Your task to perform on an android device: open app "Google Duo" Image 0: 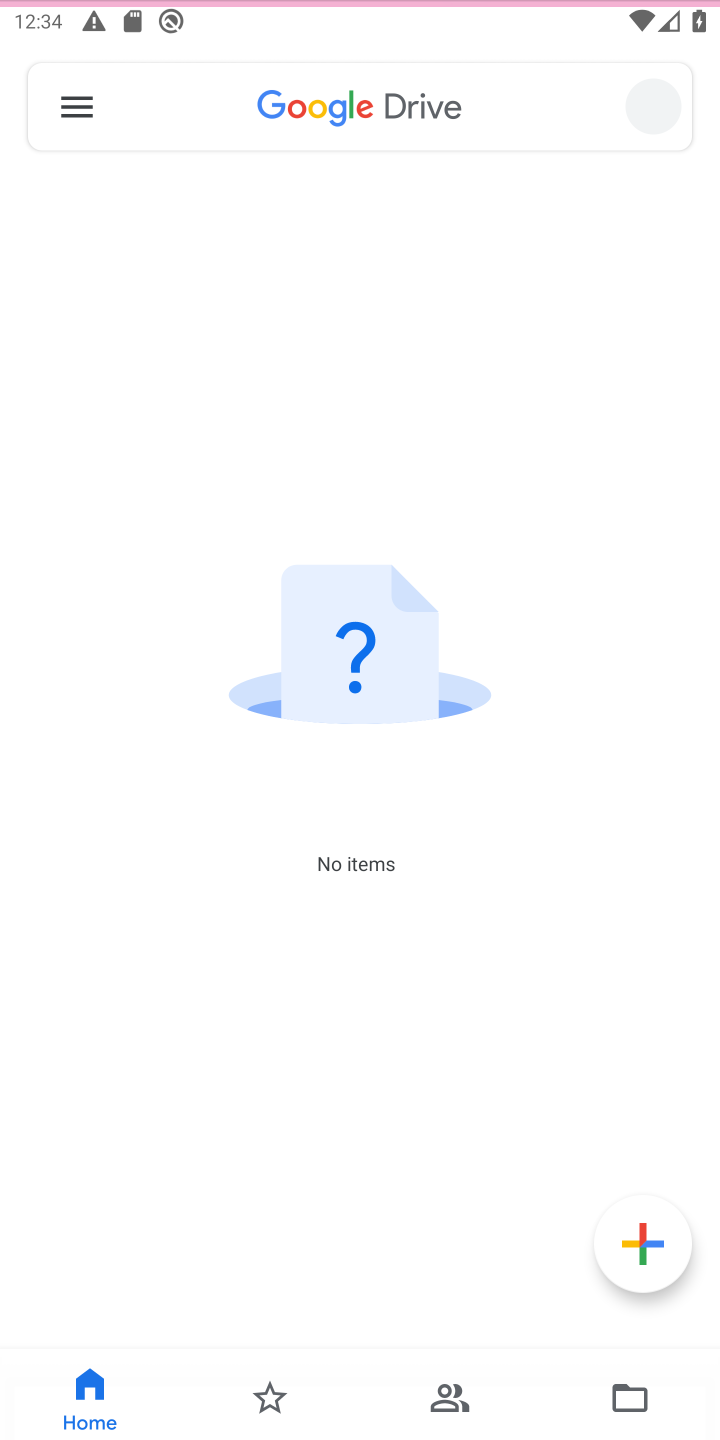
Step 0: press back button
Your task to perform on an android device: open app "Google Duo" Image 1: 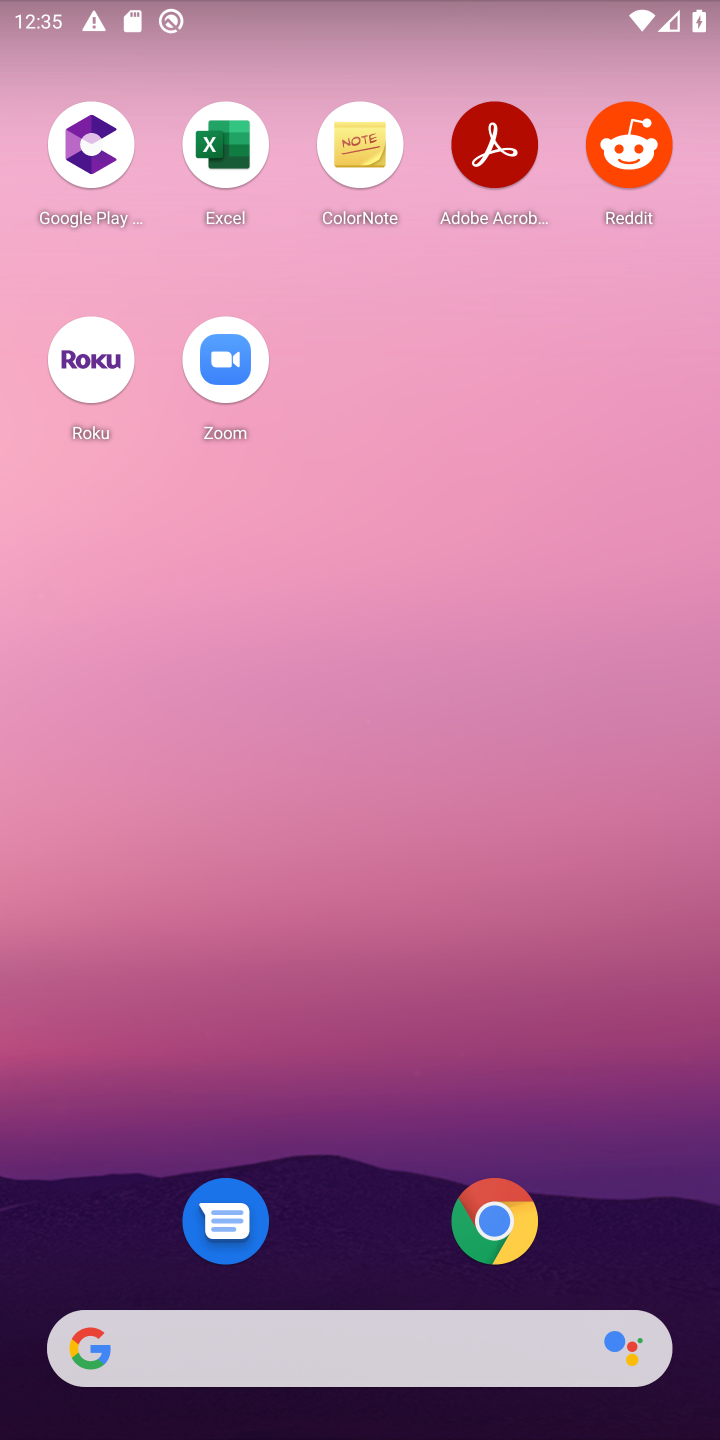
Step 1: drag from (377, 1152) to (544, 399)
Your task to perform on an android device: open app "Google Duo" Image 2: 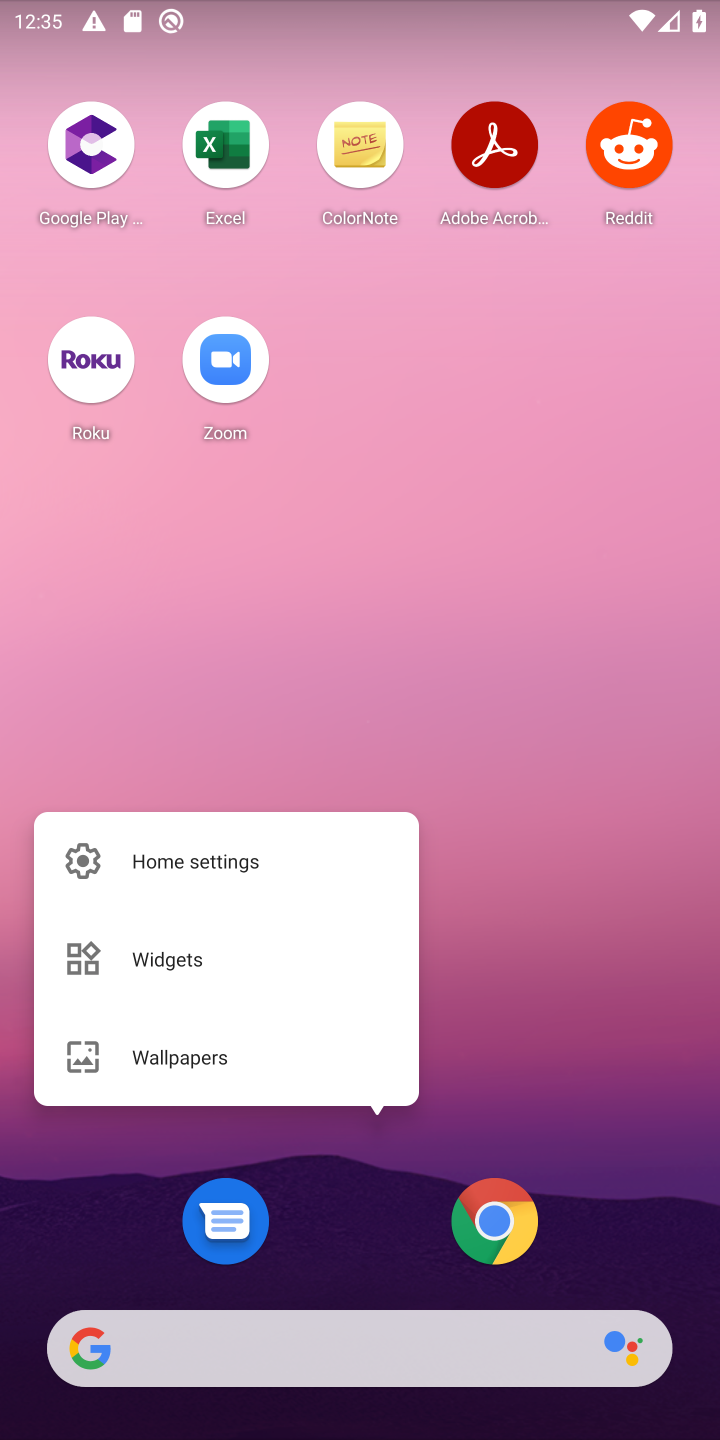
Step 2: click (397, 627)
Your task to perform on an android device: open app "Google Duo" Image 3: 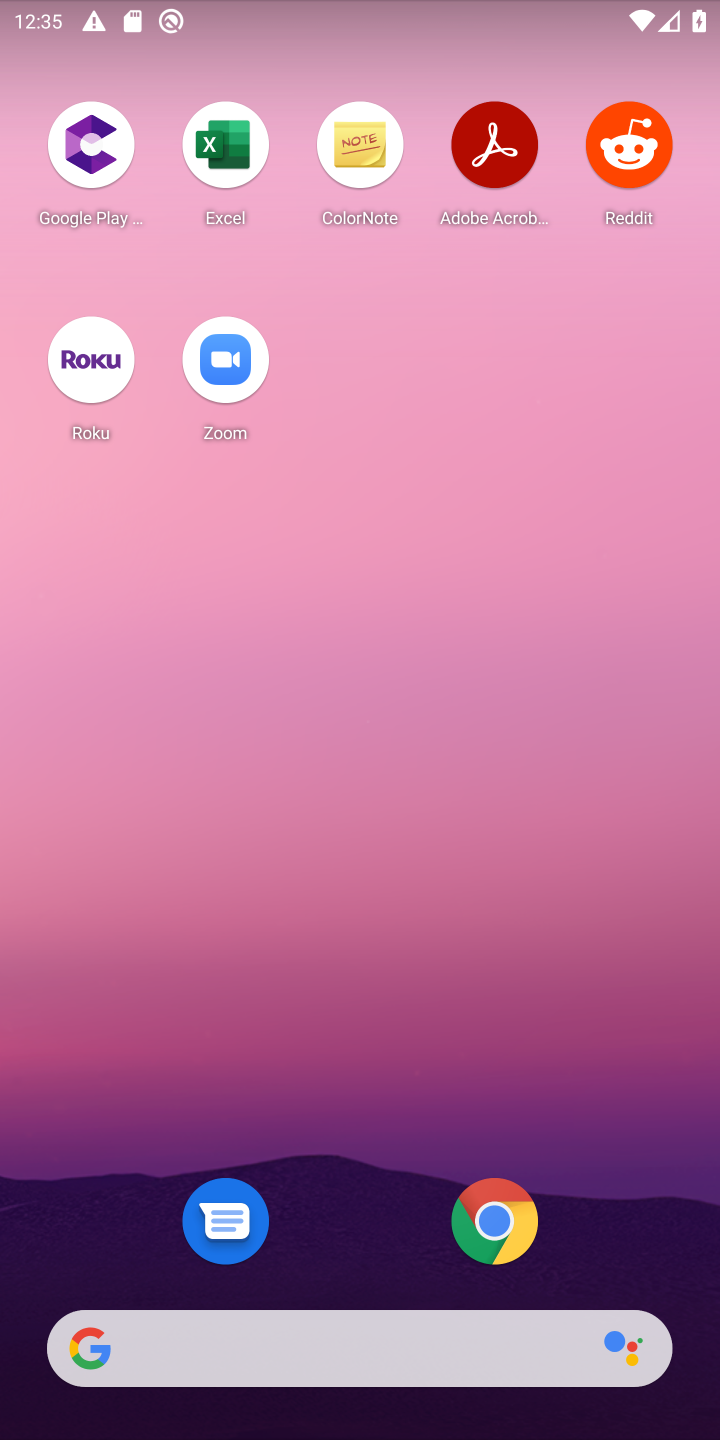
Step 3: drag from (383, 918) to (585, 188)
Your task to perform on an android device: open app "Google Duo" Image 4: 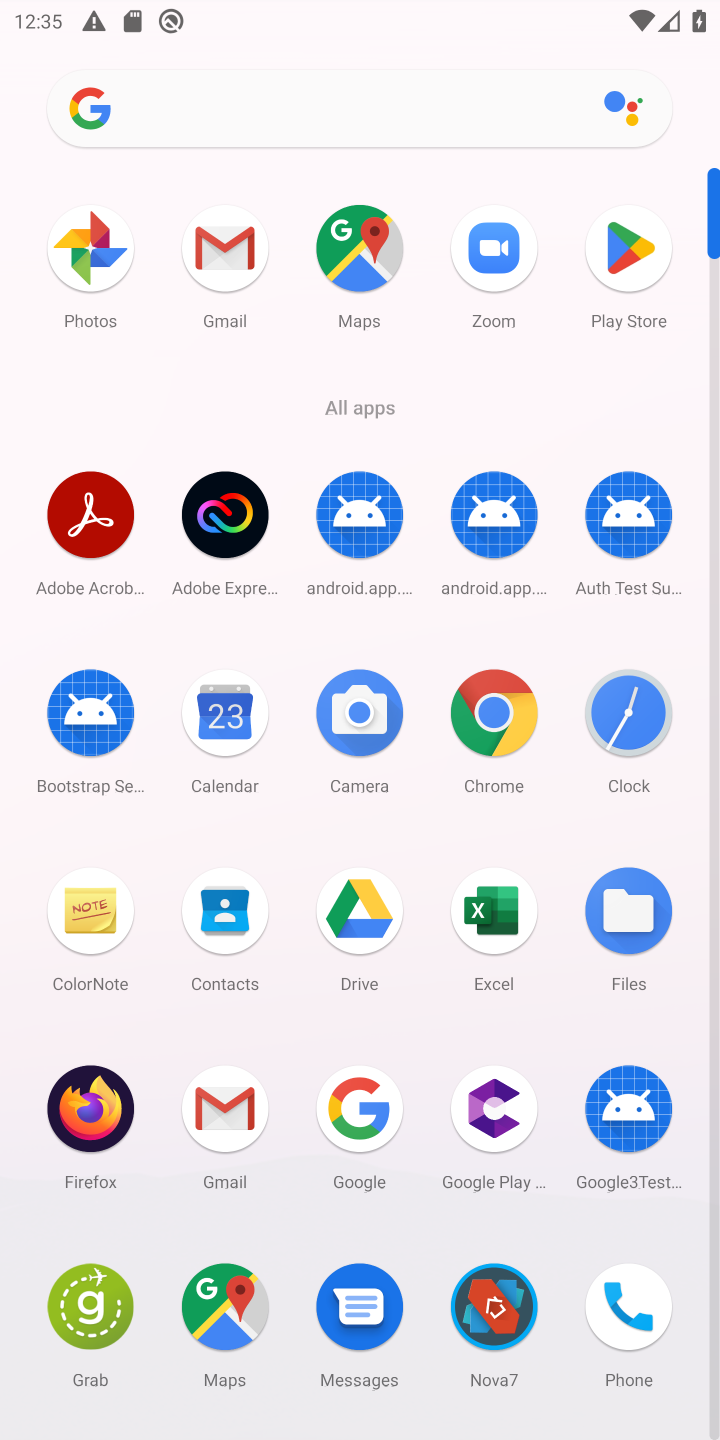
Step 4: click (630, 239)
Your task to perform on an android device: open app "Google Duo" Image 5: 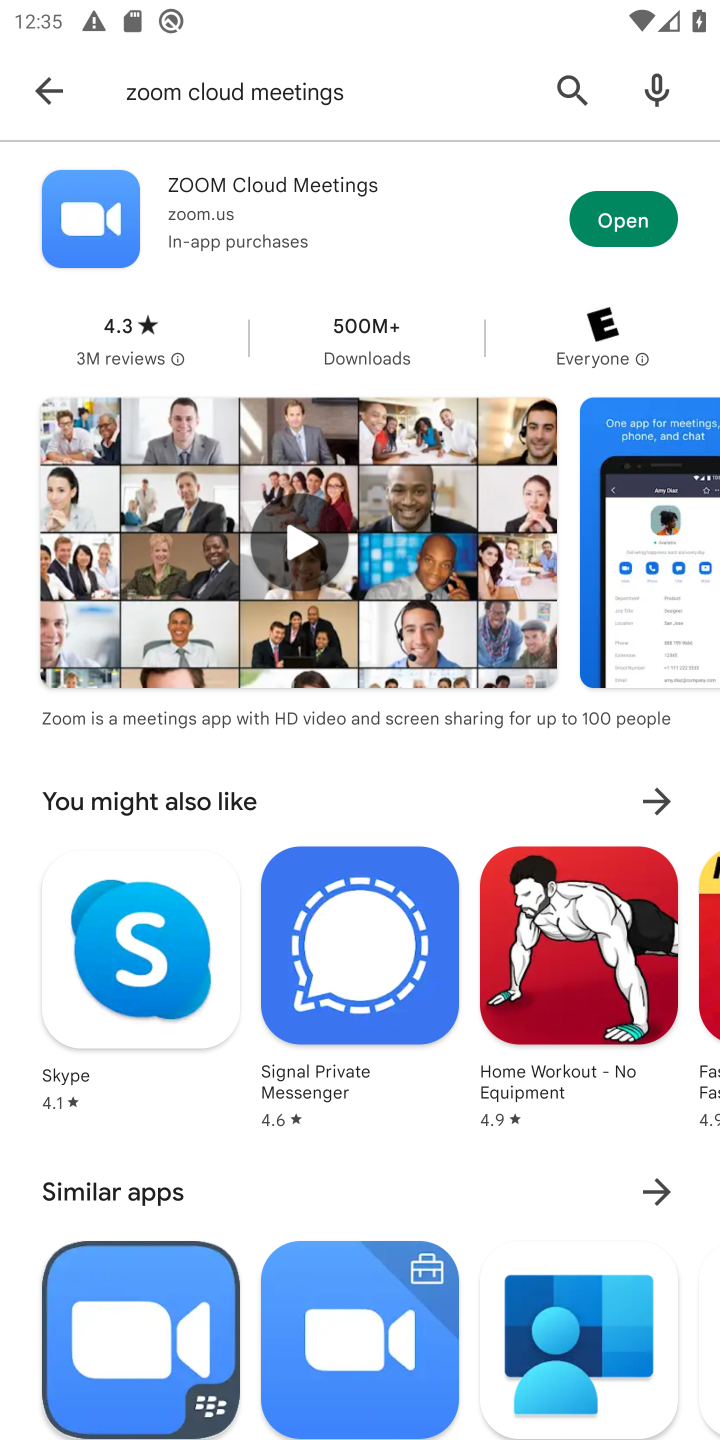
Step 5: click (580, 75)
Your task to perform on an android device: open app "Google Duo" Image 6: 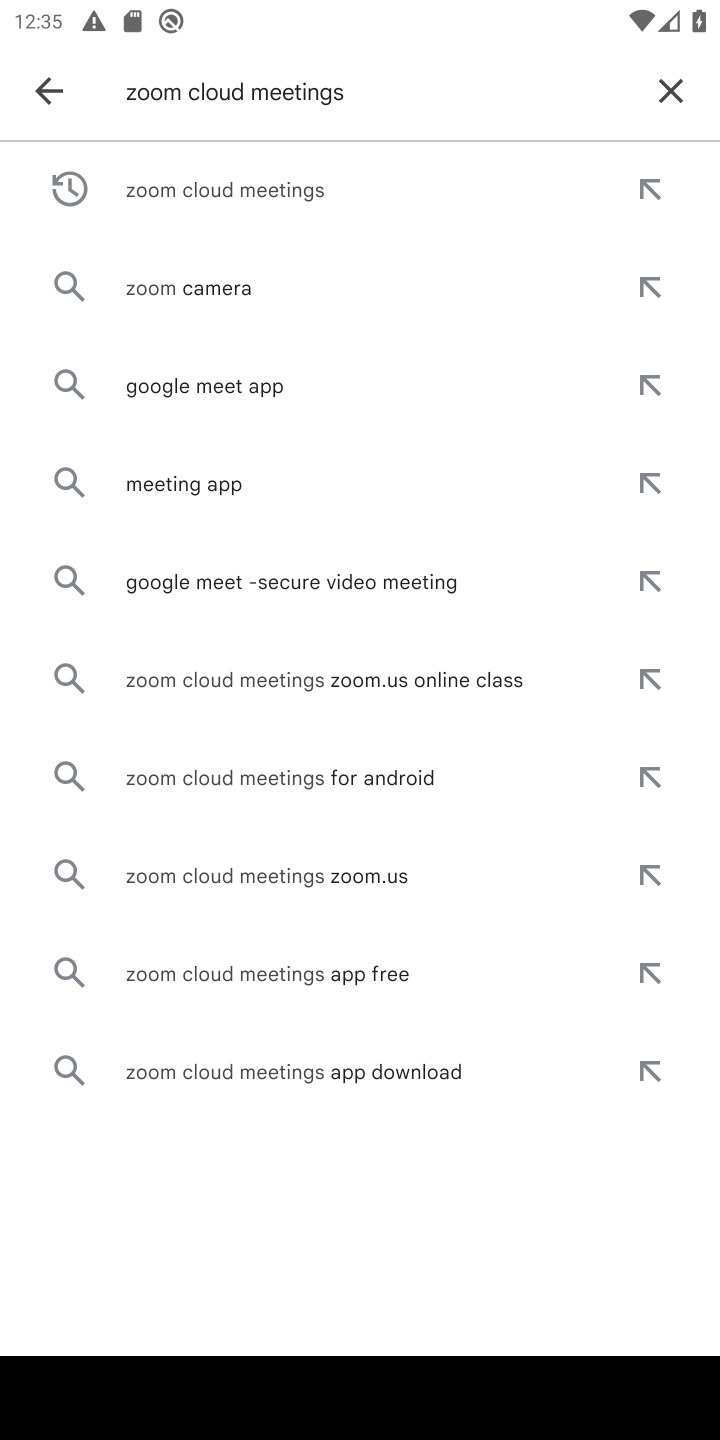
Step 6: click (658, 81)
Your task to perform on an android device: open app "Google Duo" Image 7: 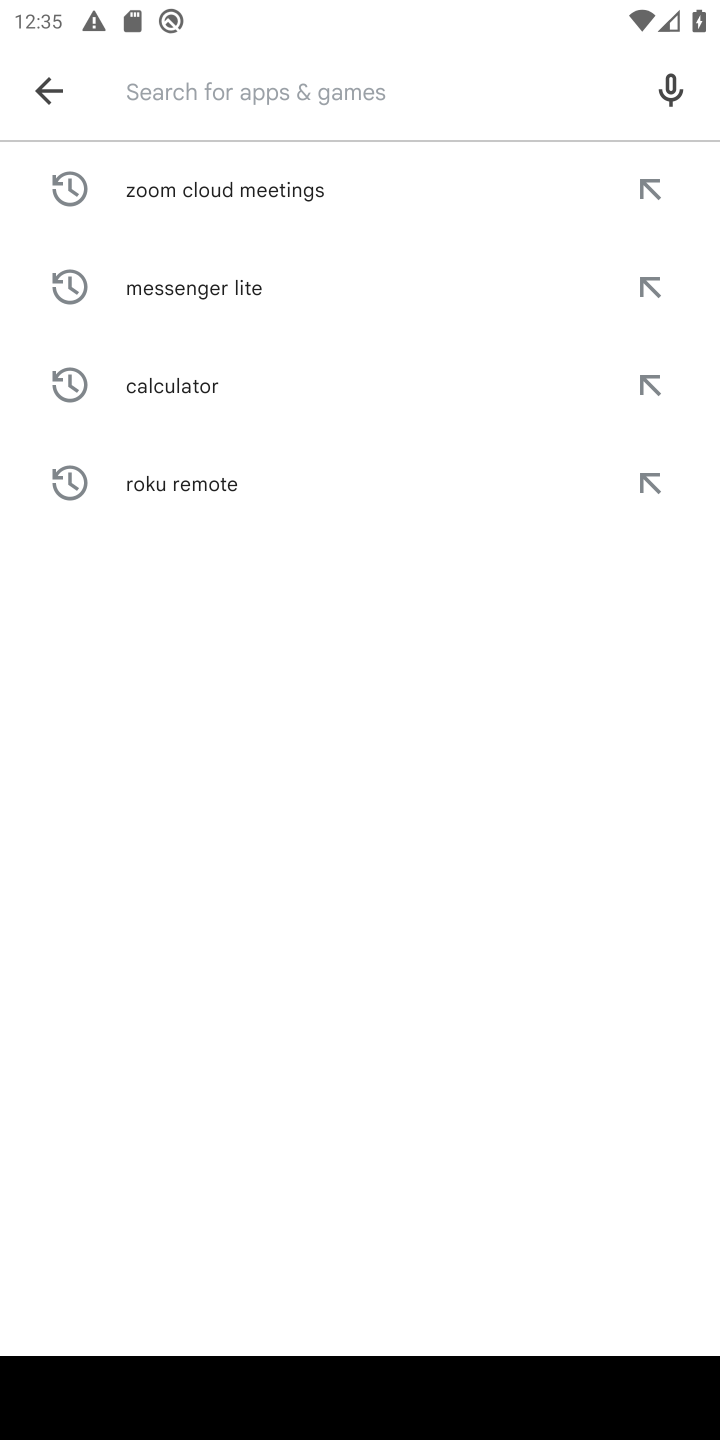
Step 7: click (225, 94)
Your task to perform on an android device: open app "Google Duo" Image 8: 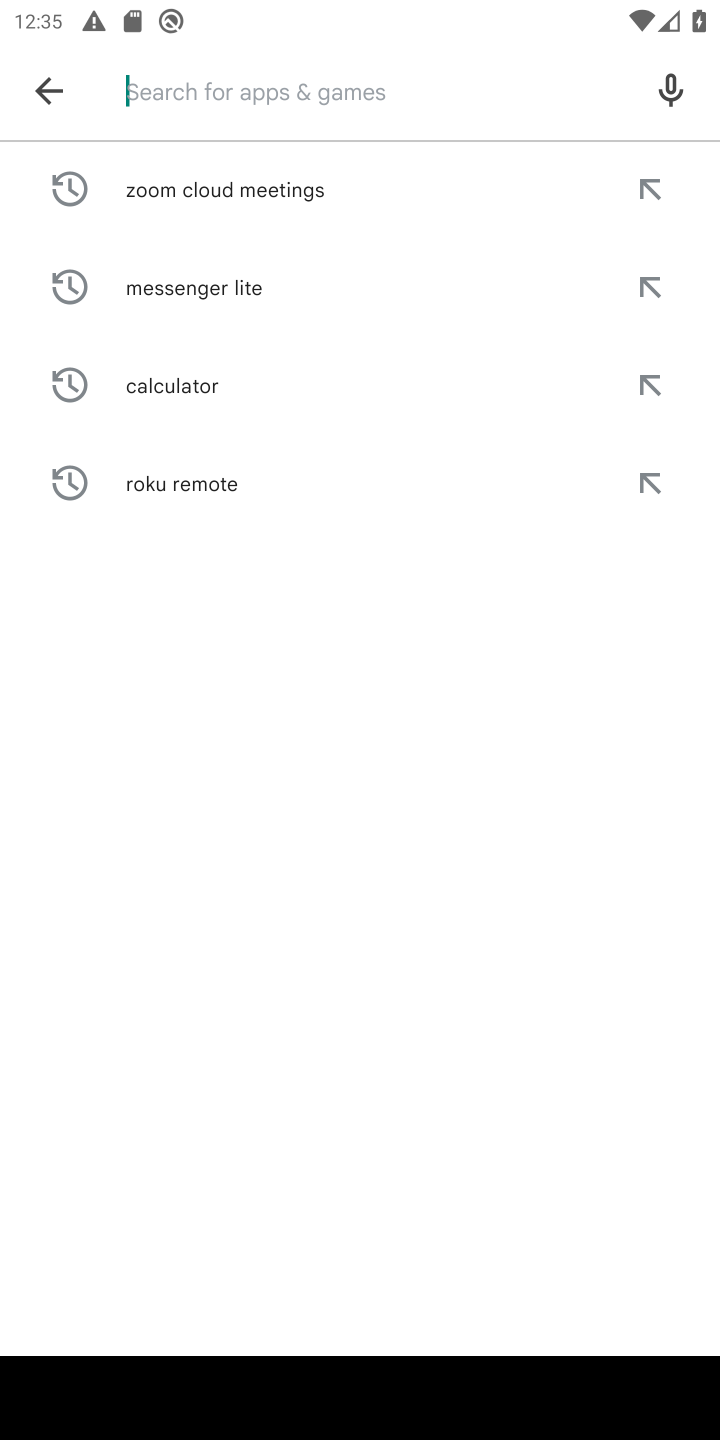
Step 8: type "Google Duo"
Your task to perform on an android device: open app "Google Duo" Image 9: 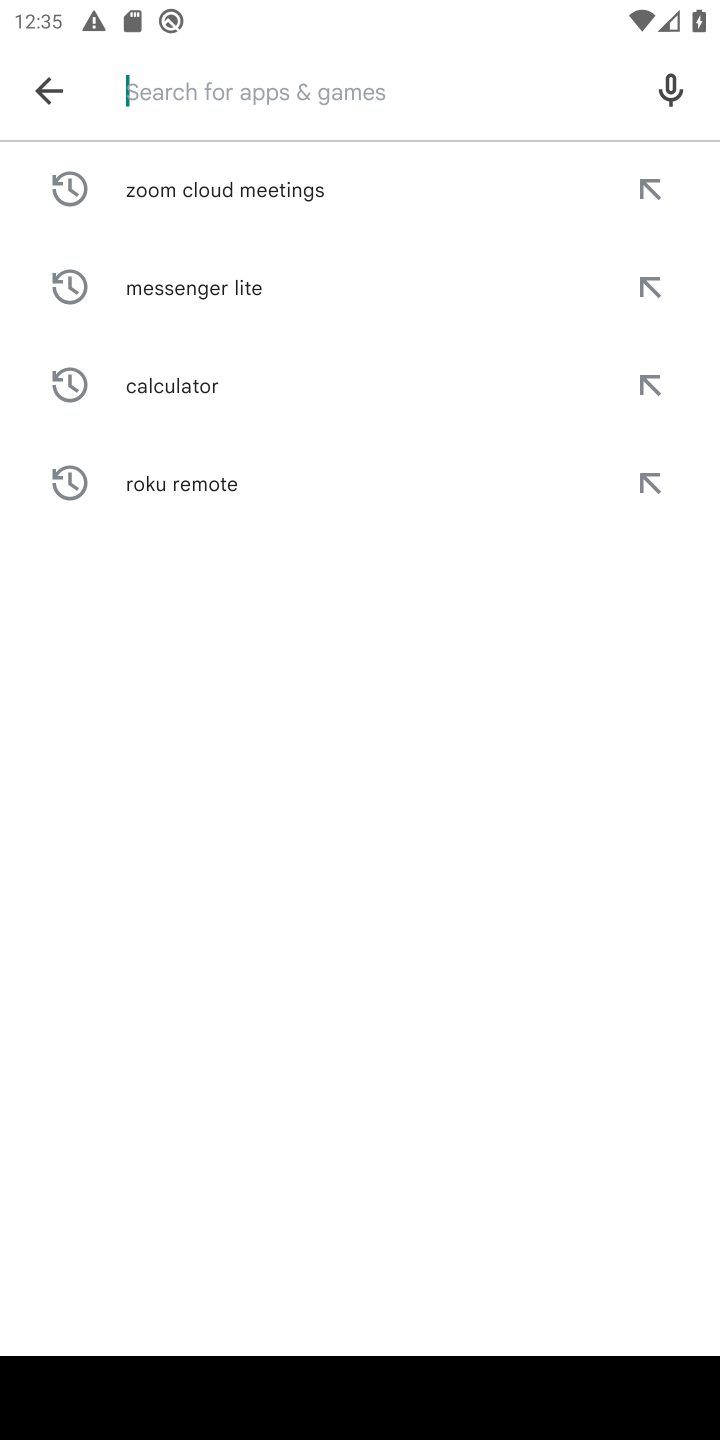
Step 9: click (500, 978)
Your task to perform on an android device: open app "Google Duo" Image 10: 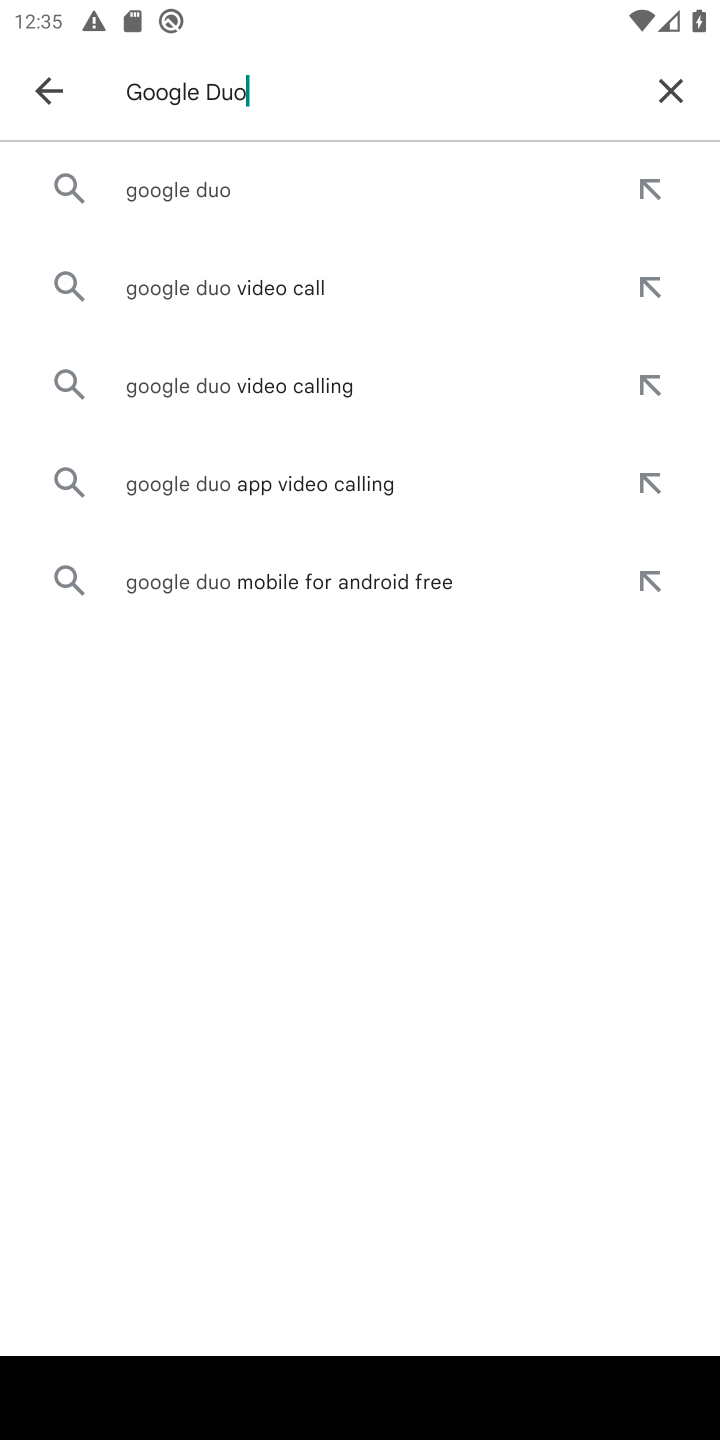
Step 10: click (231, 187)
Your task to perform on an android device: open app "Google Duo" Image 11: 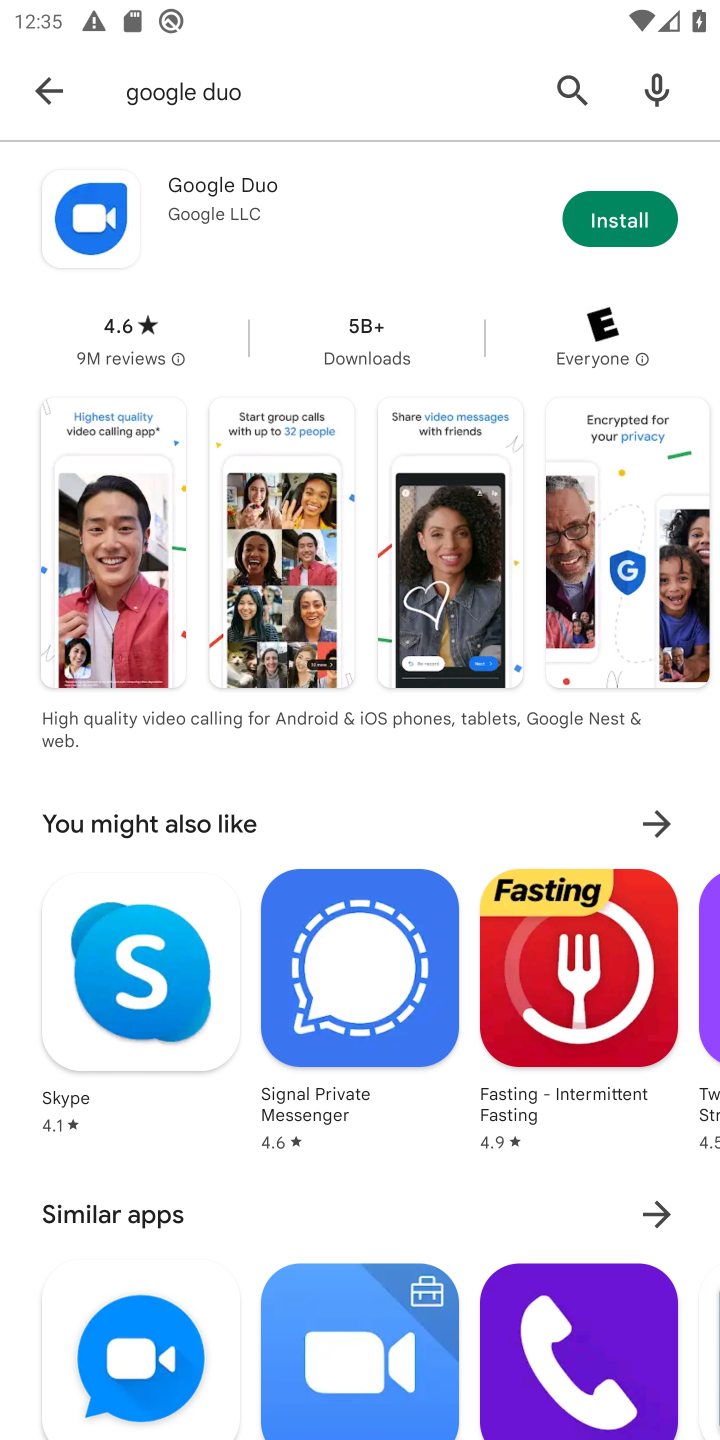
Step 11: task complete